Your task to perform on an android device: Open calendar and show me the second week of next month Image 0: 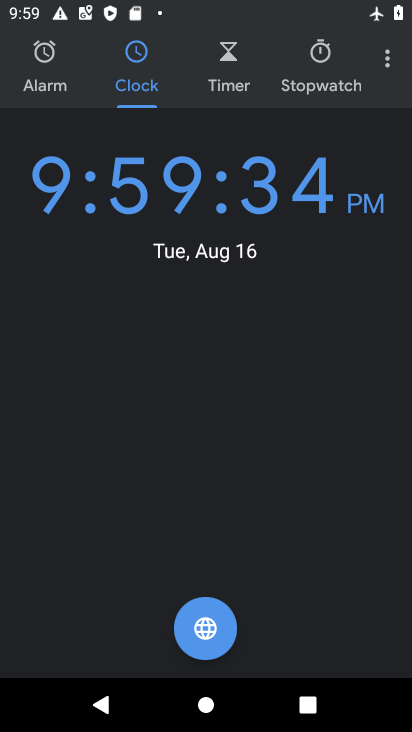
Step 0: press home button
Your task to perform on an android device: Open calendar and show me the second week of next month Image 1: 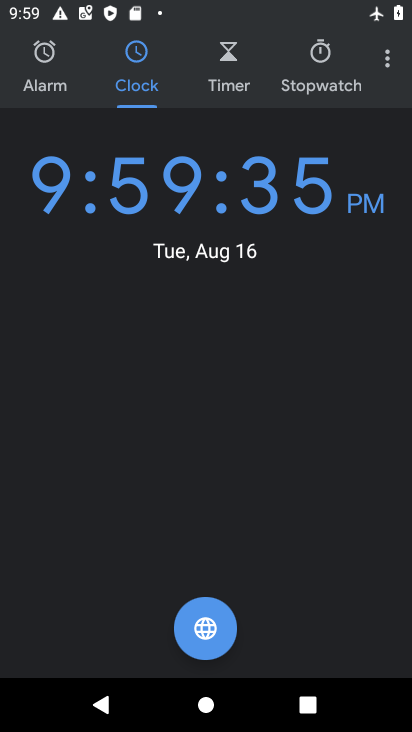
Step 1: press home button
Your task to perform on an android device: Open calendar and show me the second week of next month Image 2: 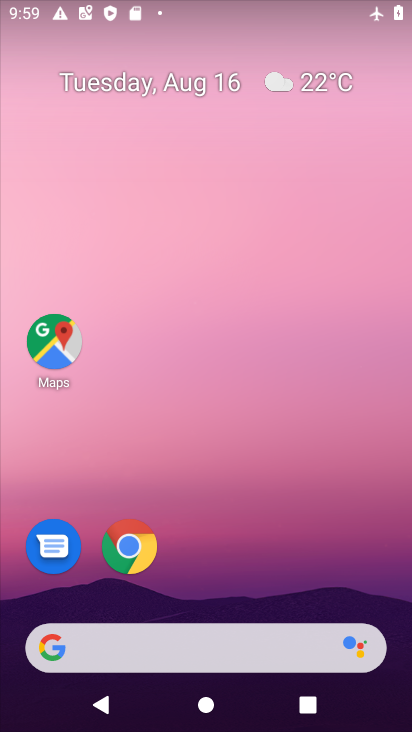
Step 2: drag from (226, 550) to (302, 1)
Your task to perform on an android device: Open calendar and show me the second week of next month Image 3: 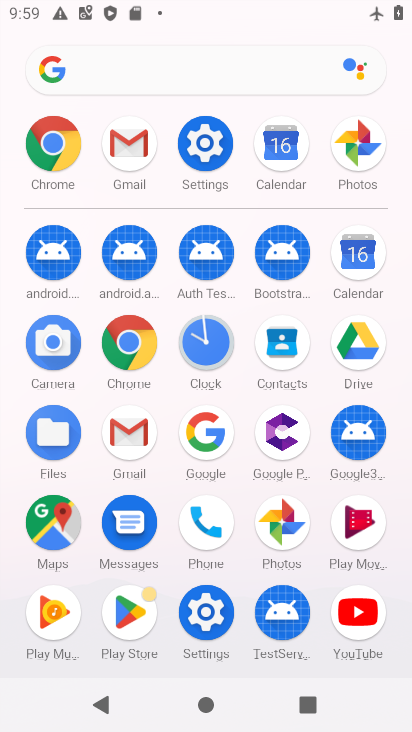
Step 3: click (279, 147)
Your task to perform on an android device: Open calendar and show me the second week of next month Image 4: 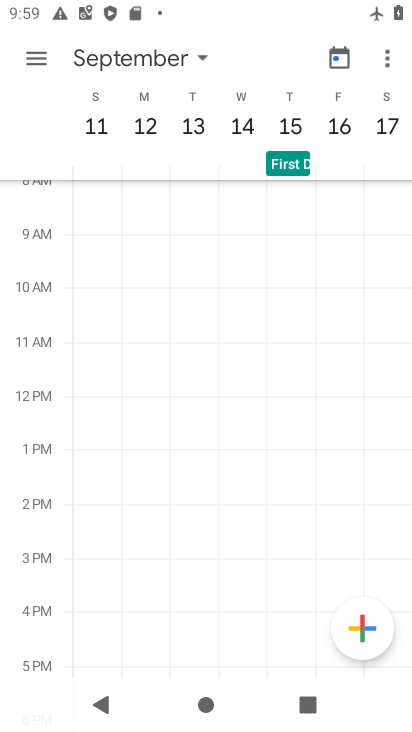
Step 4: task complete